Your task to perform on an android device: What's the weather? Image 0: 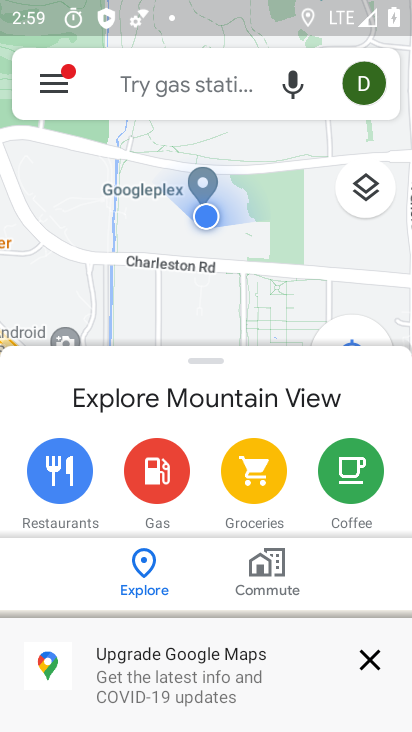
Step 0: press home button
Your task to perform on an android device: What's the weather? Image 1: 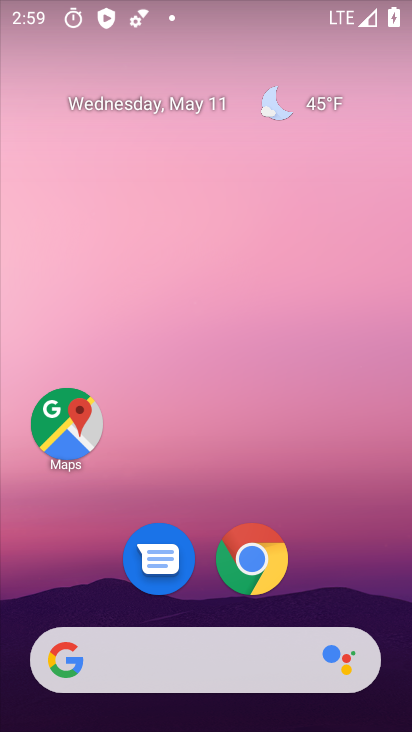
Step 1: click (310, 100)
Your task to perform on an android device: What's the weather? Image 2: 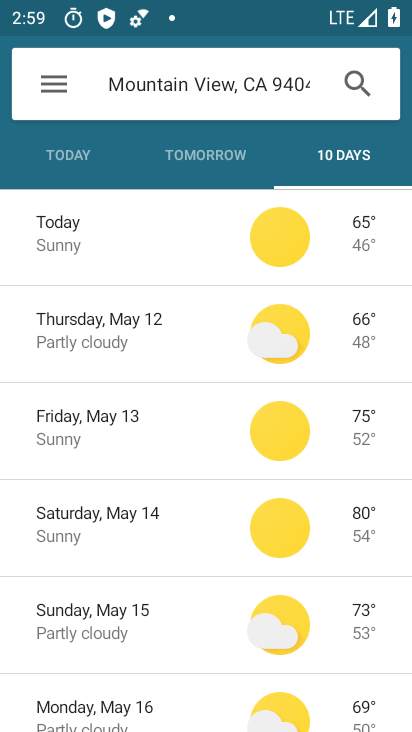
Step 2: click (67, 148)
Your task to perform on an android device: What's the weather? Image 3: 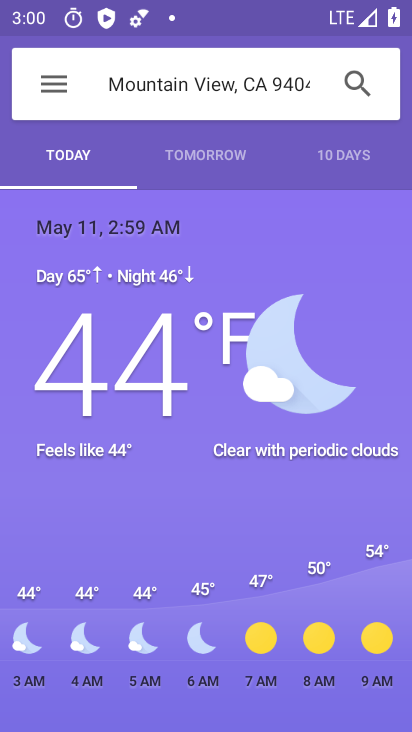
Step 3: task complete